Your task to perform on an android device: Install the Yelp app Image 0: 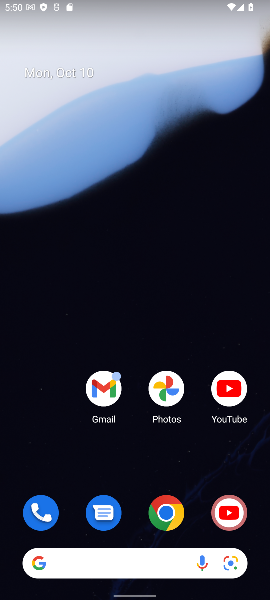
Step 0: drag from (144, 539) to (173, 17)
Your task to perform on an android device: Install the Yelp app Image 1: 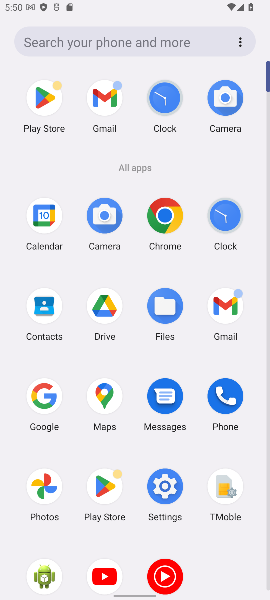
Step 1: click (45, 106)
Your task to perform on an android device: Install the Yelp app Image 2: 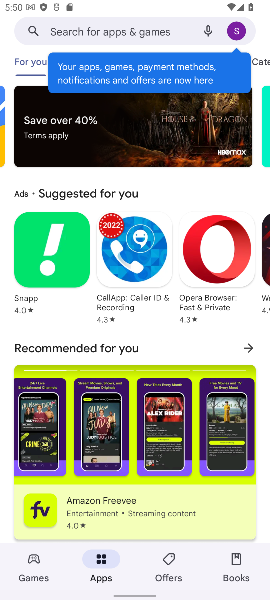
Step 2: type "yelp "
Your task to perform on an android device: Install the Yelp app Image 3: 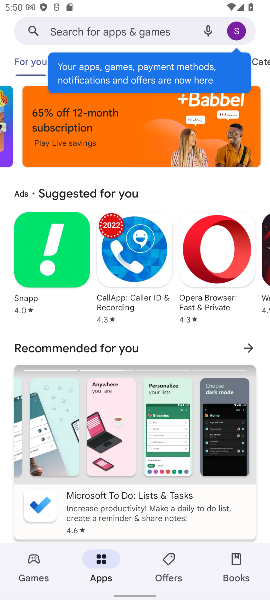
Step 3: click (108, 35)
Your task to perform on an android device: Install the Yelp app Image 4: 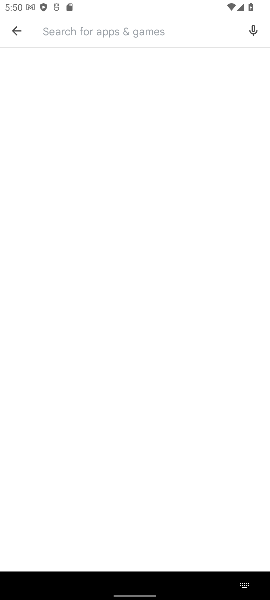
Step 4: type "yelp"
Your task to perform on an android device: Install the Yelp app Image 5: 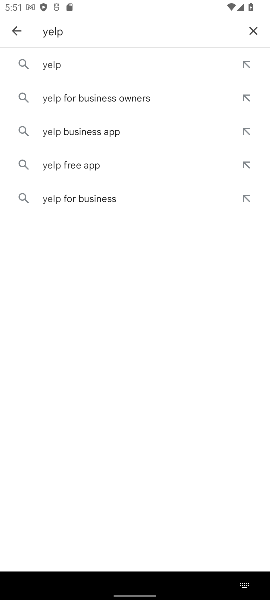
Step 5: click (68, 63)
Your task to perform on an android device: Install the Yelp app Image 6: 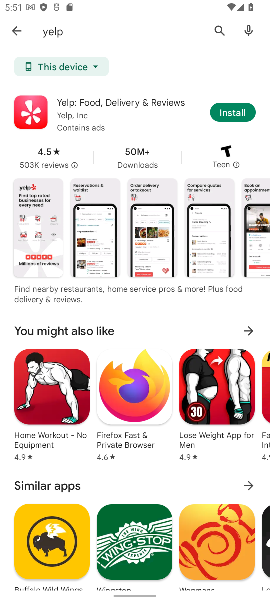
Step 6: click (238, 114)
Your task to perform on an android device: Install the Yelp app Image 7: 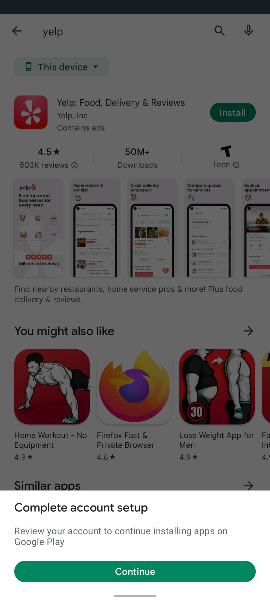
Step 7: click (97, 578)
Your task to perform on an android device: Install the Yelp app Image 8: 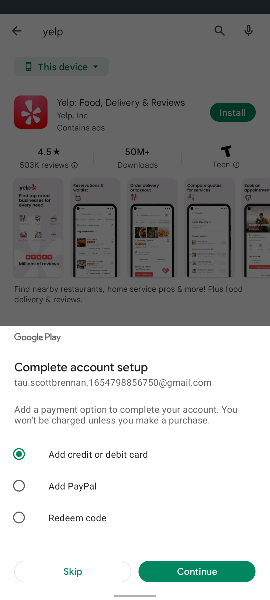
Step 8: click (87, 566)
Your task to perform on an android device: Install the Yelp app Image 9: 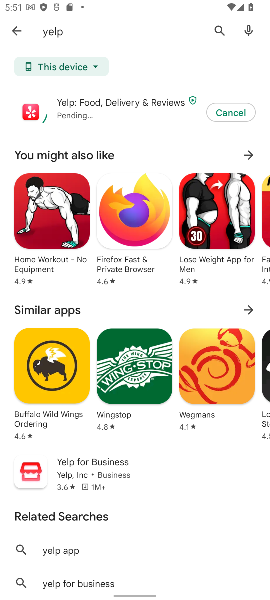
Step 9: task complete